Your task to perform on an android device: What is the recent news? Image 0: 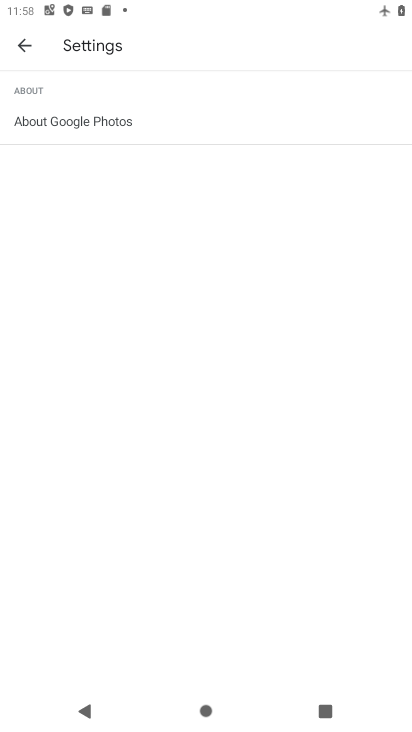
Step 0: press home button
Your task to perform on an android device: What is the recent news? Image 1: 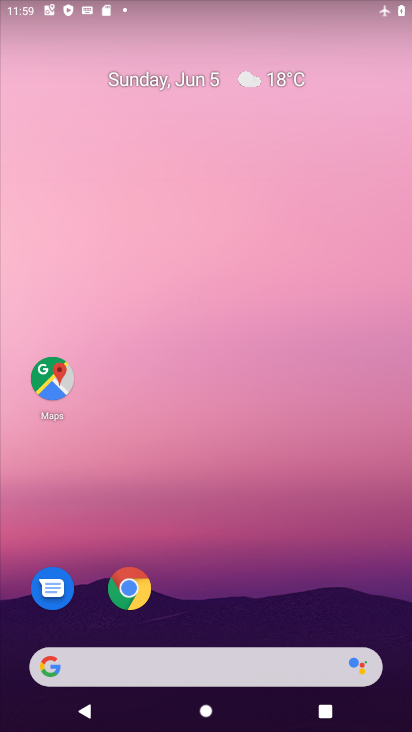
Step 1: click (243, 661)
Your task to perform on an android device: What is the recent news? Image 2: 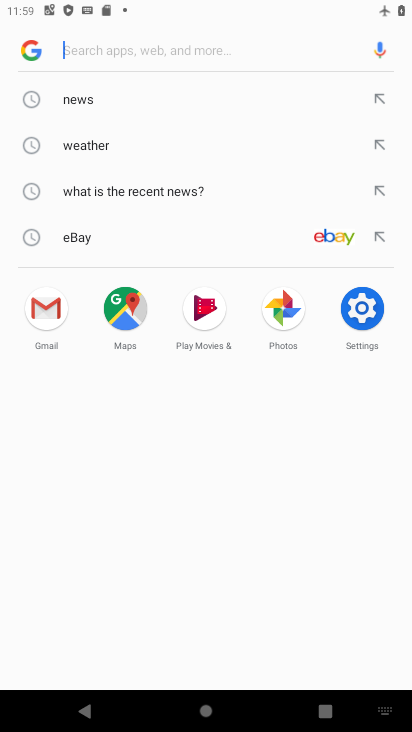
Step 2: click (214, 98)
Your task to perform on an android device: What is the recent news? Image 3: 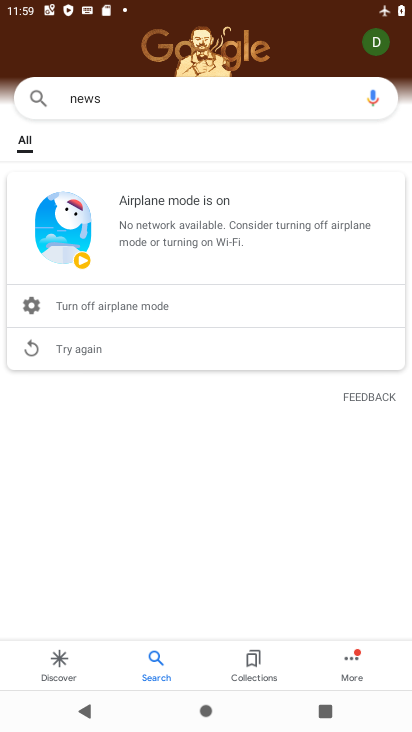
Step 3: task complete